Your task to perform on an android device: Go to Android settings Image 0: 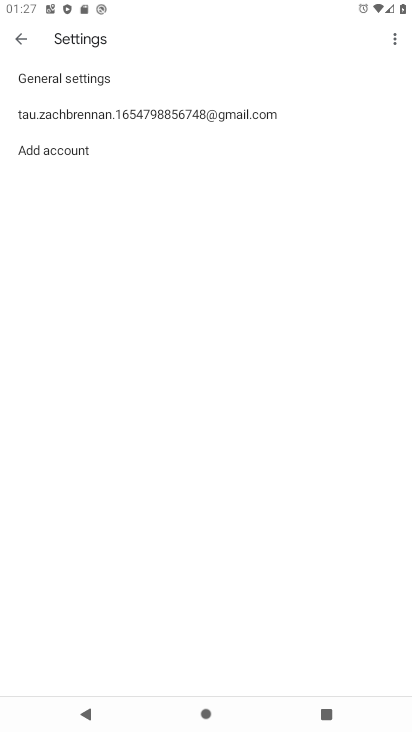
Step 0: press home button
Your task to perform on an android device: Go to Android settings Image 1: 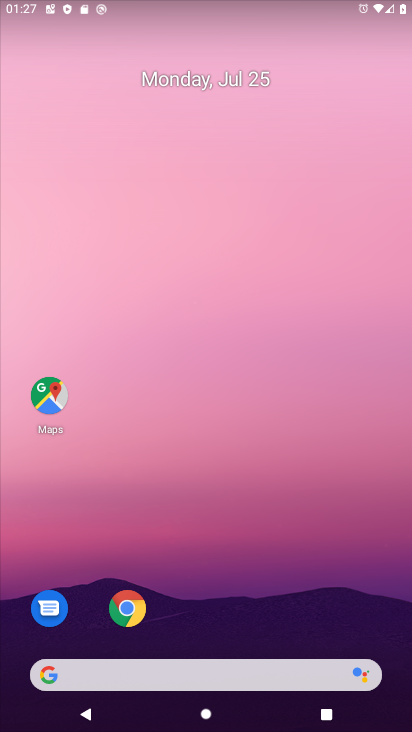
Step 1: drag from (216, 659) to (23, 367)
Your task to perform on an android device: Go to Android settings Image 2: 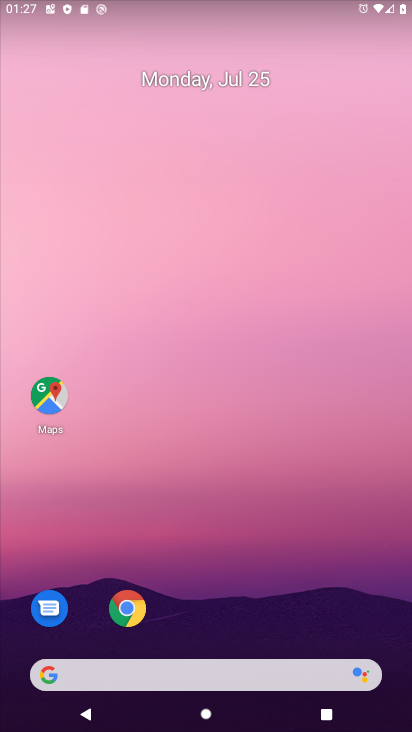
Step 2: click (267, 120)
Your task to perform on an android device: Go to Android settings Image 3: 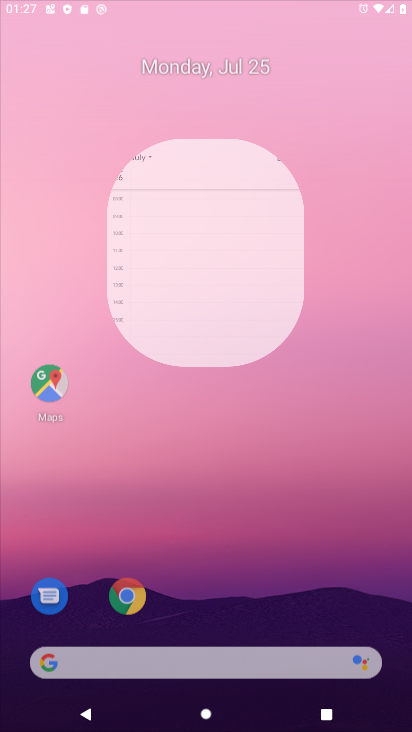
Step 3: drag from (187, 625) to (171, 83)
Your task to perform on an android device: Go to Android settings Image 4: 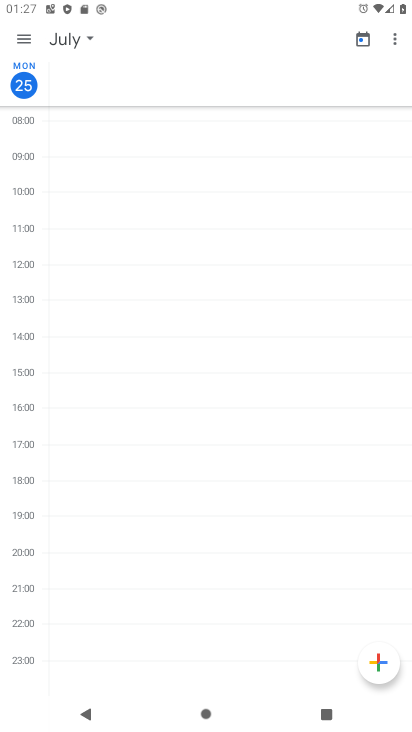
Step 4: press home button
Your task to perform on an android device: Go to Android settings Image 5: 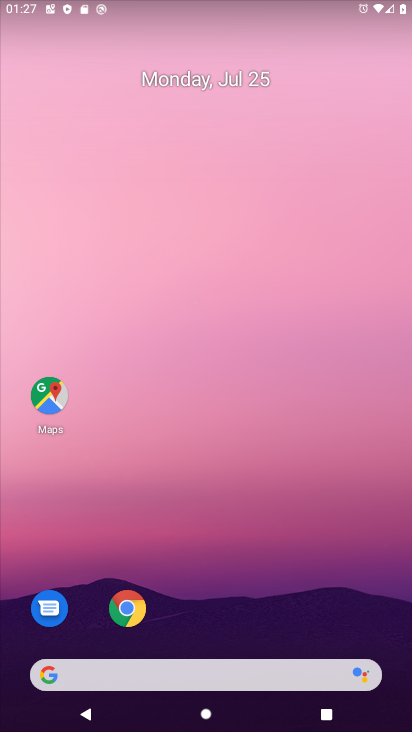
Step 5: drag from (210, 634) to (307, 718)
Your task to perform on an android device: Go to Android settings Image 6: 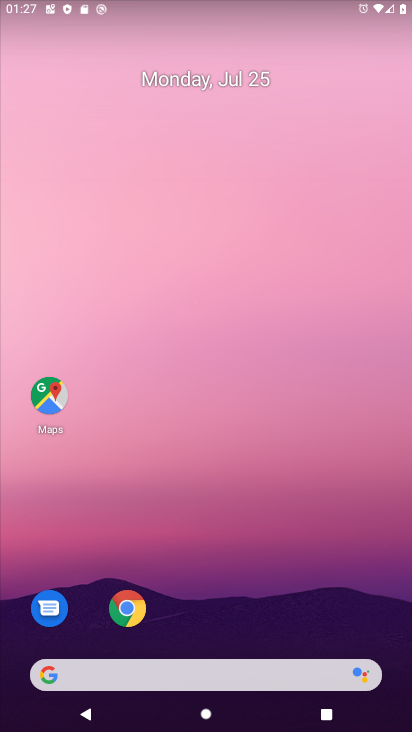
Step 6: drag from (201, 674) to (131, 42)
Your task to perform on an android device: Go to Android settings Image 7: 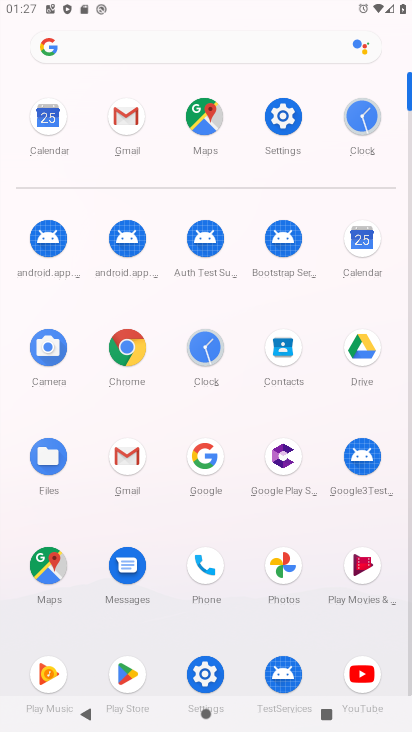
Step 7: click (272, 126)
Your task to perform on an android device: Go to Android settings Image 8: 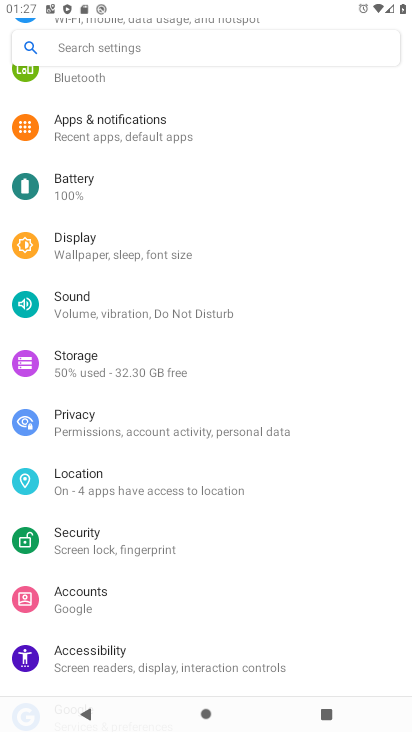
Step 8: task complete